Your task to perform on an android device: Open my contact list Image 0: 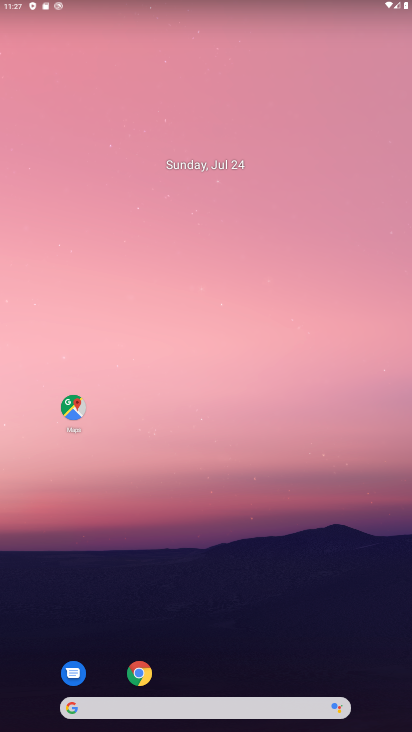
Step 0: drag from (217, 708) to (296, 191)
Your task to perform on an android device: Open my contact list Image 1: 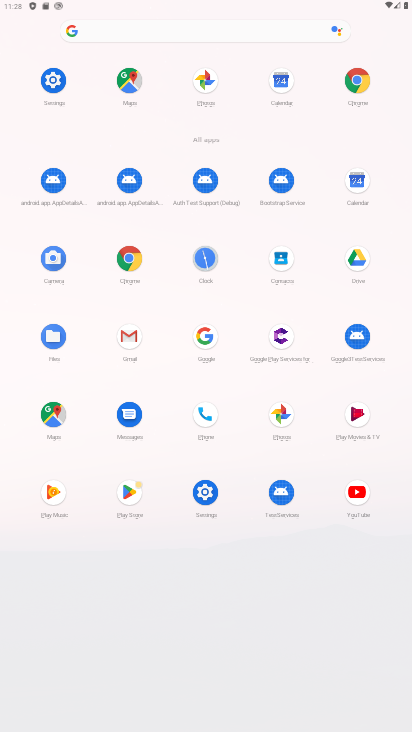
Step 1: click (282, 260)
Your task to perform on an android device: Open my contact list Image 2: 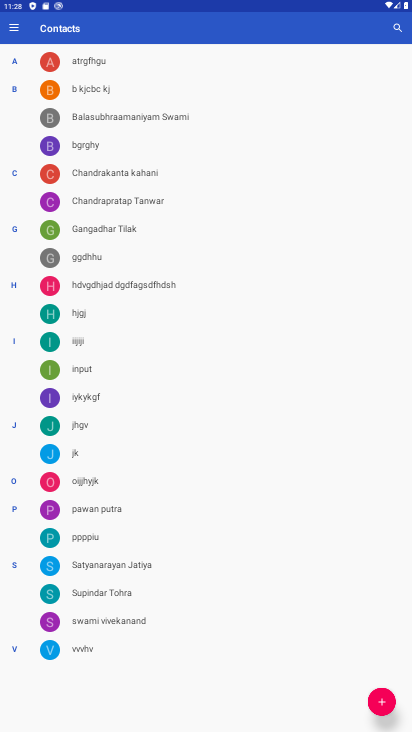
Step 2: task complete